Your task to perform on an android device: turn notification dots off Image 0: 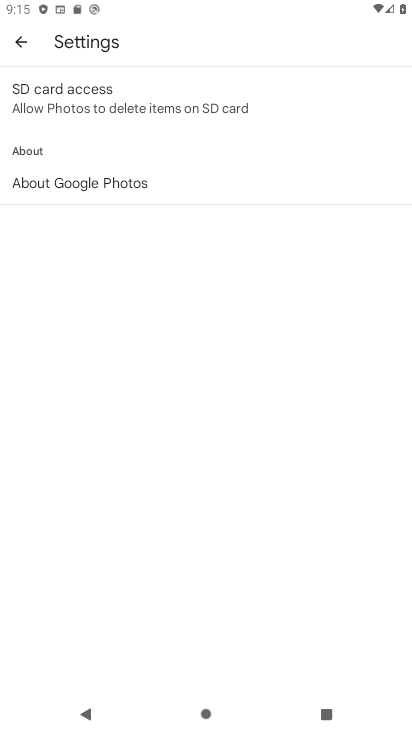
Step 0: press home button
Your task to perform on an android device: turn notification dots off Image 1: 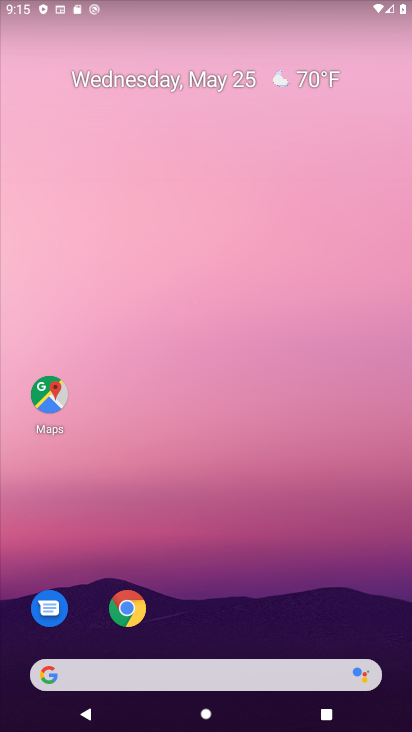
Step 1: drag from (267, 510) to (142, 36)
Your task to perform on an android device: turn notification dots off Image 2: 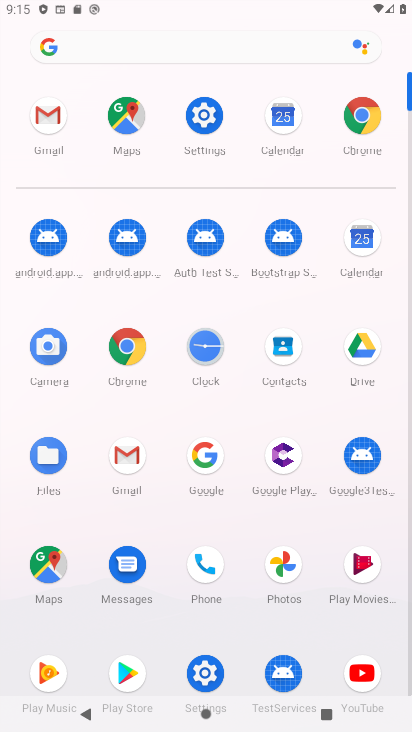
Step 2: click (212, 79)
Your task to perform on an android device: turn notification dots off Image 3: 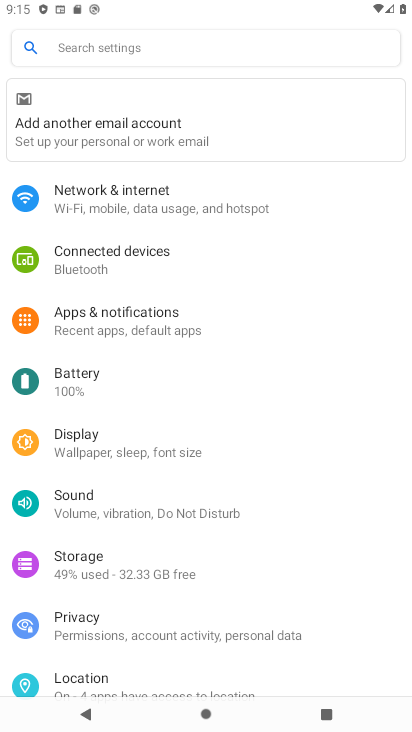
Step 3: click (181, 334)
Your task to perform on an android device: turn notification dots off Image 4: 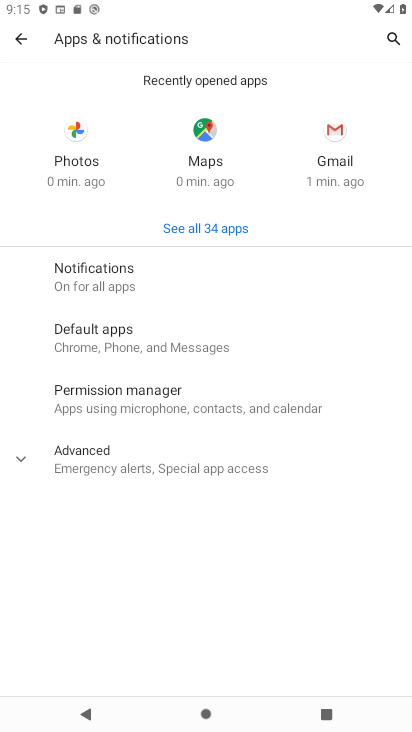
Step 4: click (182, 277)
Your task to perform on an android device: turn notification dots off Image 5: 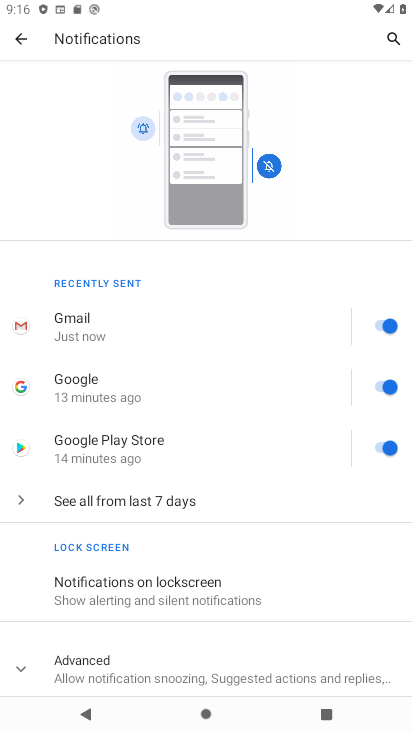
Step 5: click (197, 589)
Your task to perform on an android device: turn notification dots off Image 6: 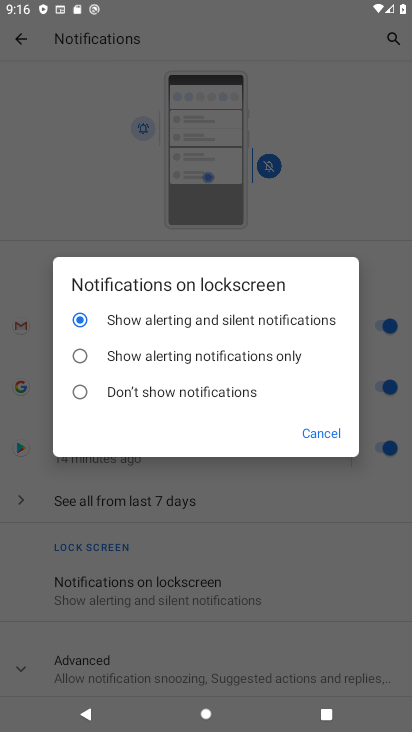
Step 6: click (309, 426)
Your task to perform on an android device: turn notification dots off Image 7: 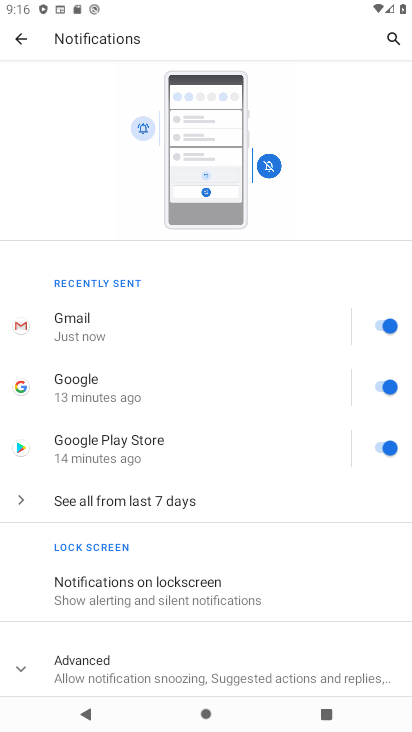
Step 7: drag from (236, 630) to (238, 480)
Your task to perform on an android device: turn notification dots off Image 8: 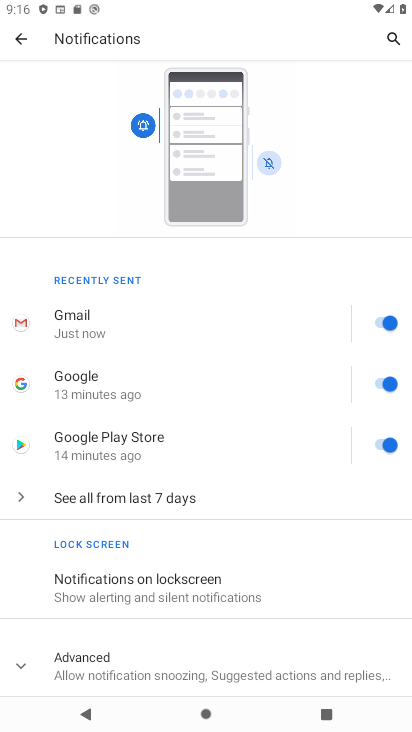
Step 8: click (200, 659)
Your task to perform on an android device: turn notification dots off Image 9: 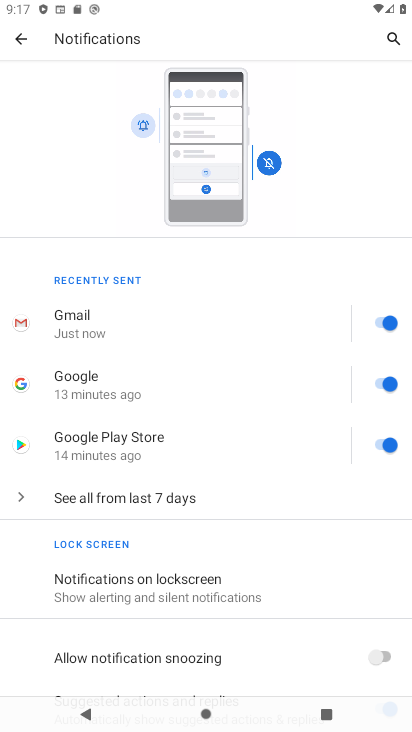
Step 9: task complete